Your task to perform on an android device: See recent photos Image 0: 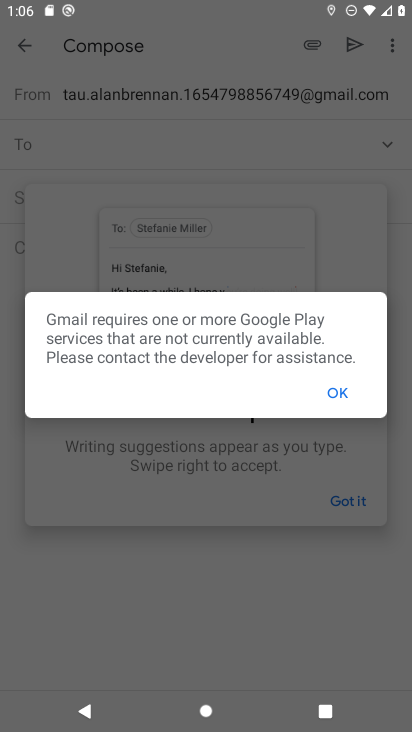
Step 0: press home button
Your task to perform on an android device: See recent photos Image 1: 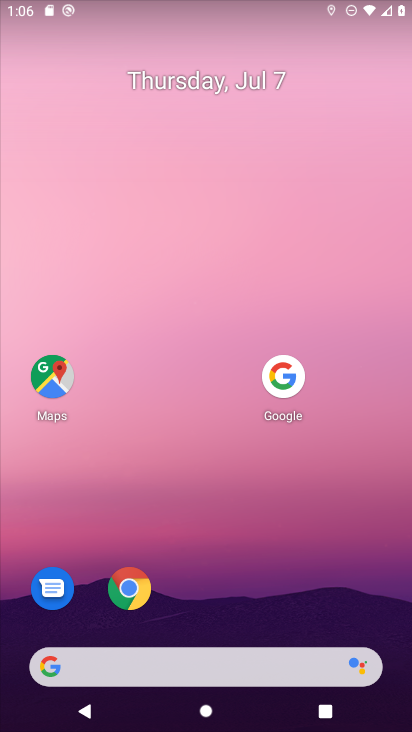
Step 1: drag from (170, 664) to (301, 47)
Your task to perform on an android device: See recent photos Image 2: 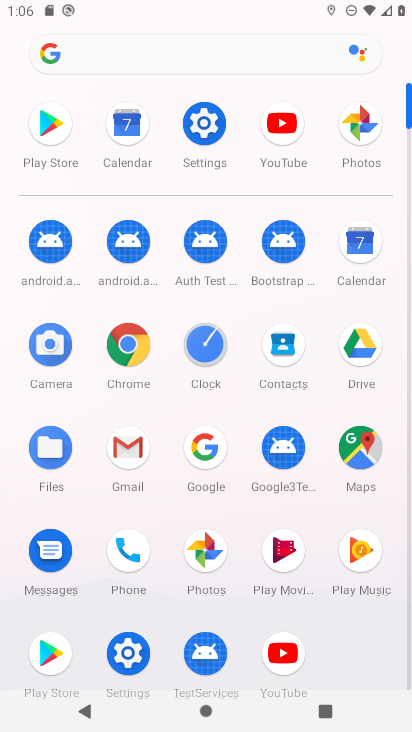
Step 2: click (215, 554)
Your task to perform on an android device: See recent photos Image 3: 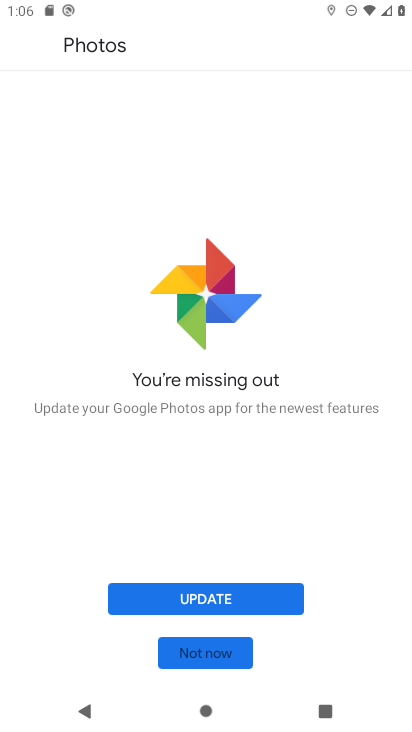
Step 3: click (223, 596)
Your task to perform on an android device: See recent photos Image 4: 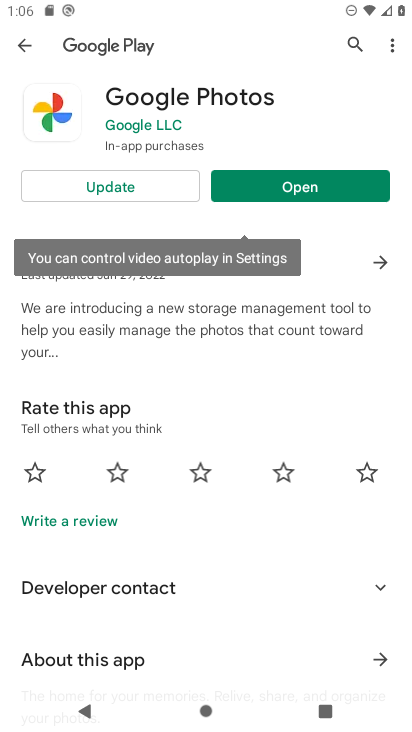
Step 4: click (280, 181)
Your task to perform on an android device: See recent photos Image 5: 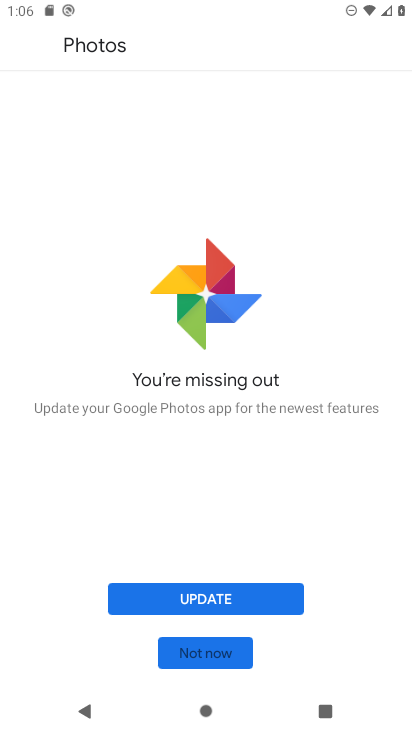
Step 5: click (205, 602)
Your task to perform on an android device: See recent photos Image 6: 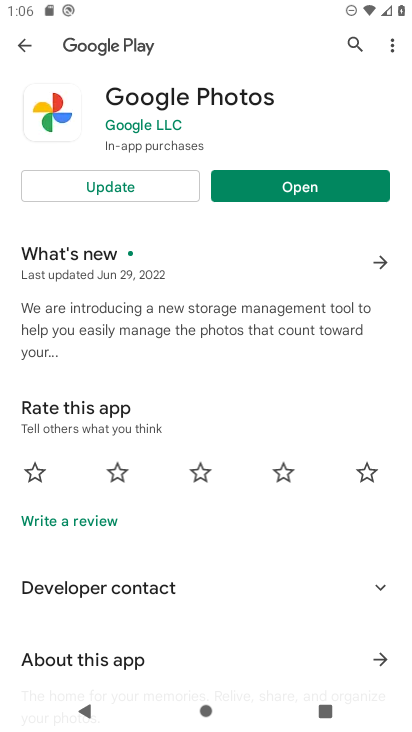
Step 6: click (144, 190)
Your task to perform on an android device: See recent photos Image 7: 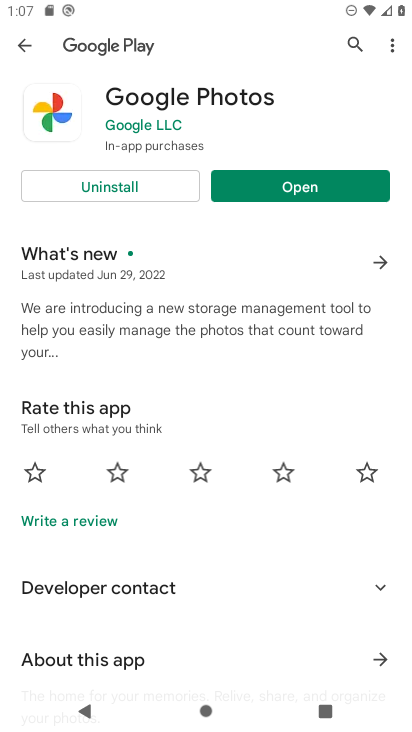
Step 7: click (295, 191)
Your task to perform on an android device: See recent photos Image 8: 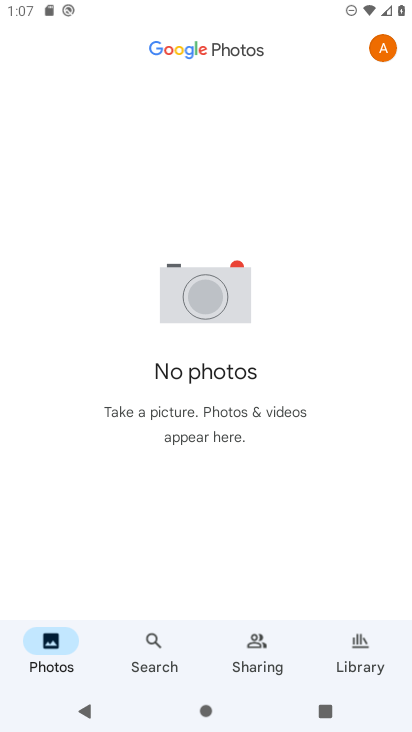
Step 8: click (37, 648)
Your task to perform on an android device: See recent photos Image 9: 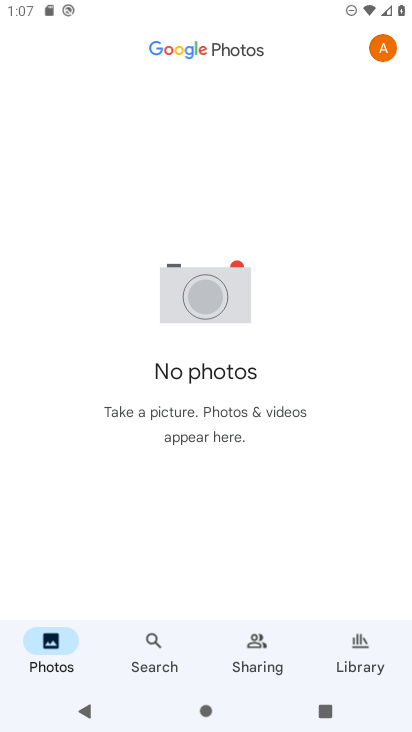
Step 9: task complete